Your task to perform on an android device: Clear all items from cart on ebay.com. Image 0: 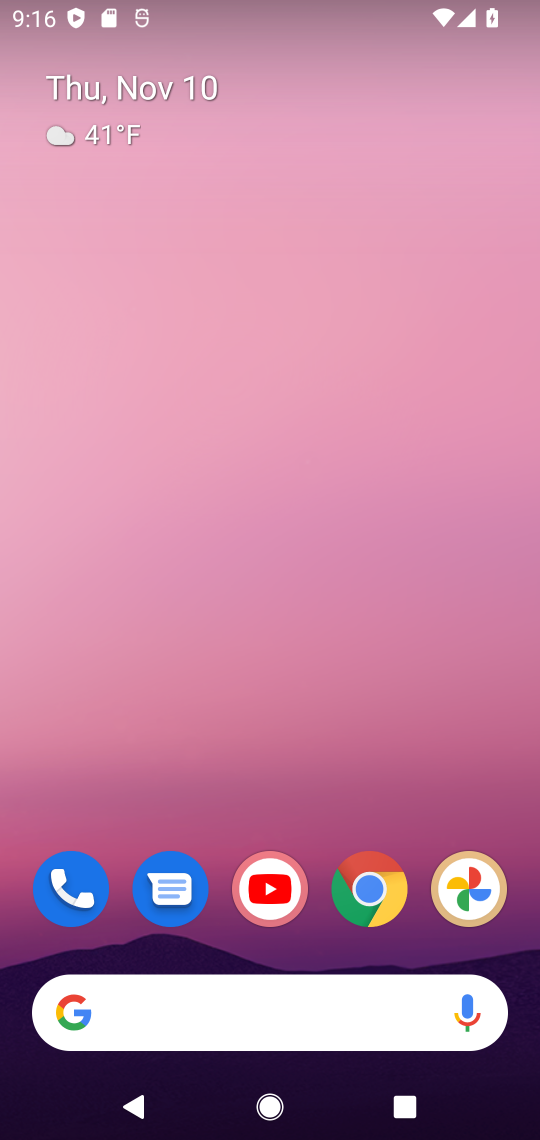
Step 0: click (362, 887)
Your task to perform on an android device: Clear all items from cart on ebay.com. Image 1: 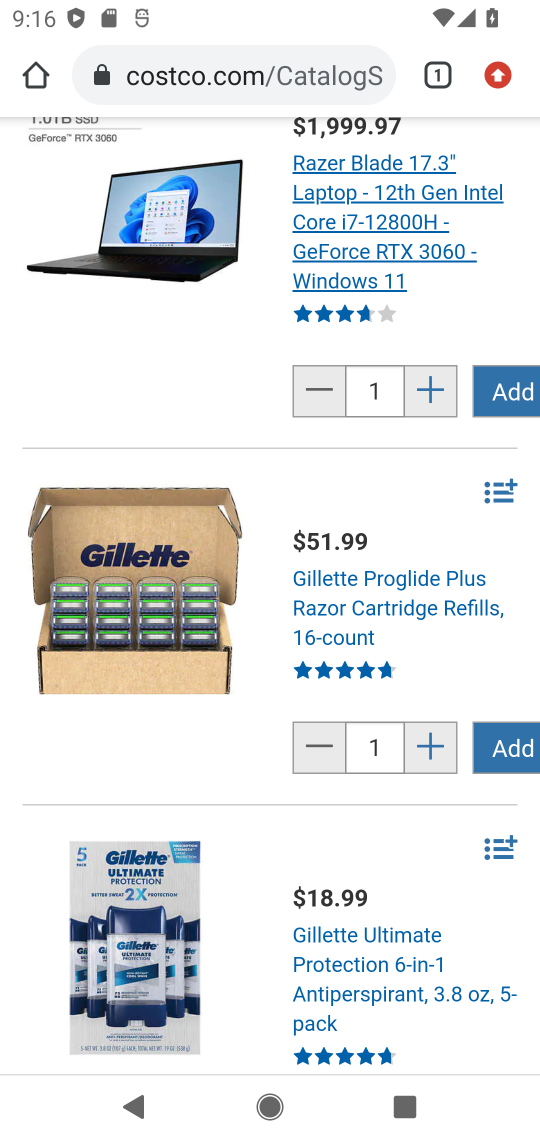
Step 1: click (345, 174)
Your task to perform on an android device: Clear all items from cart on ebay.com. Image 2: 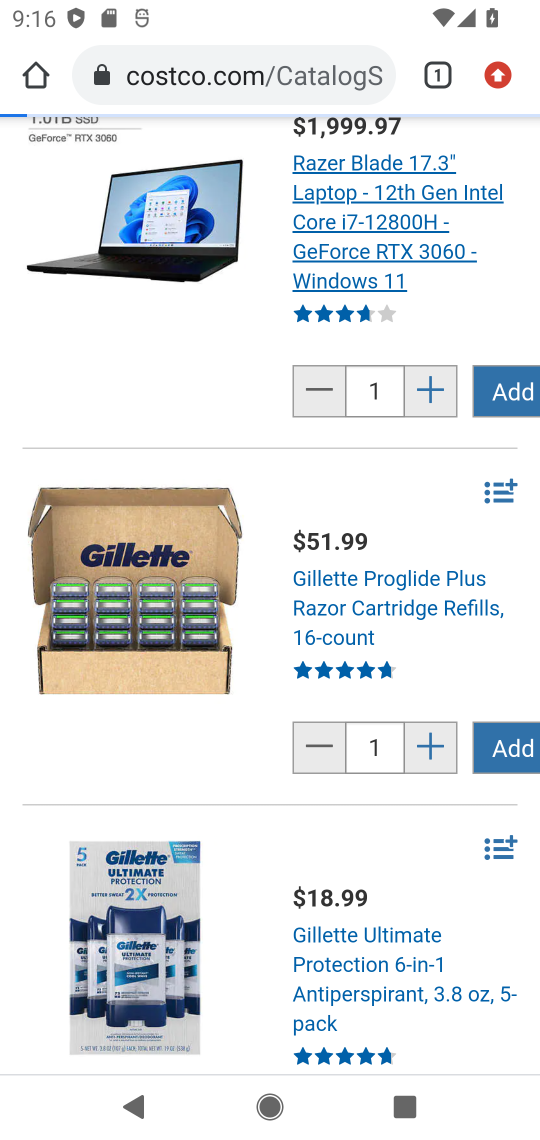
Step 2: click (277, 67)
Your task to perform on an android device: Clear all items from cart on ebay.com. Image 3: 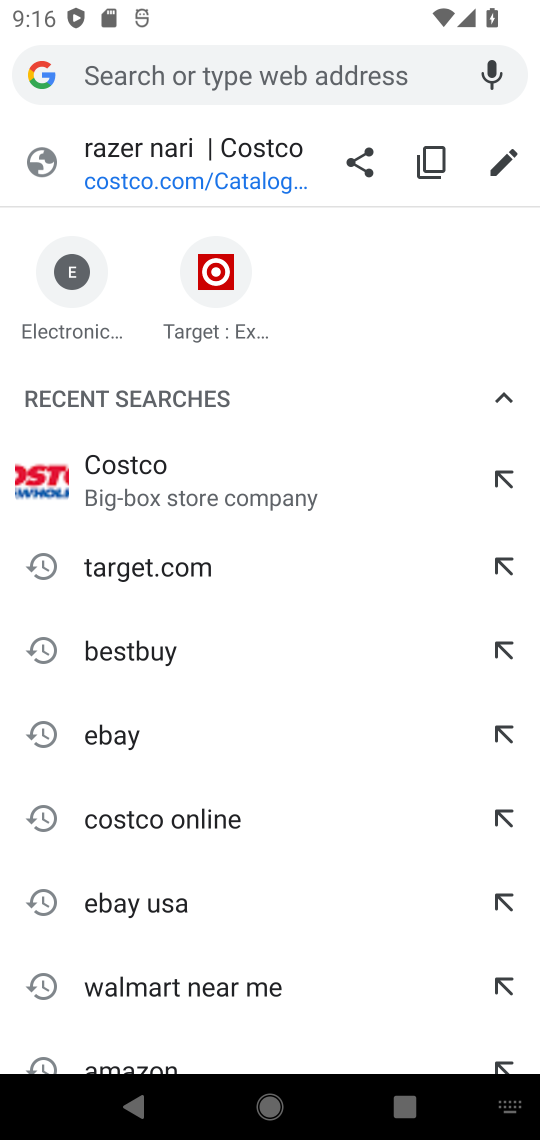
Step 3: click (115, 741)
Your task to perform on an android device: Clear all items from cart on ebay.com. Image 4: 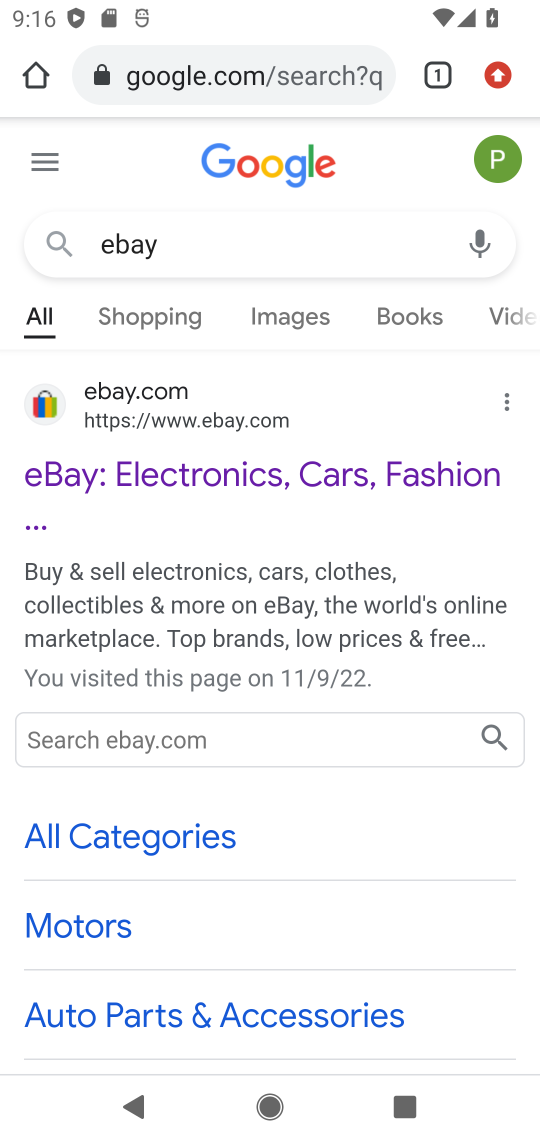
Step 4: click (236, 469)
Your task to perform on an android device: Clear all items from cart on ebay.com. Image 5: 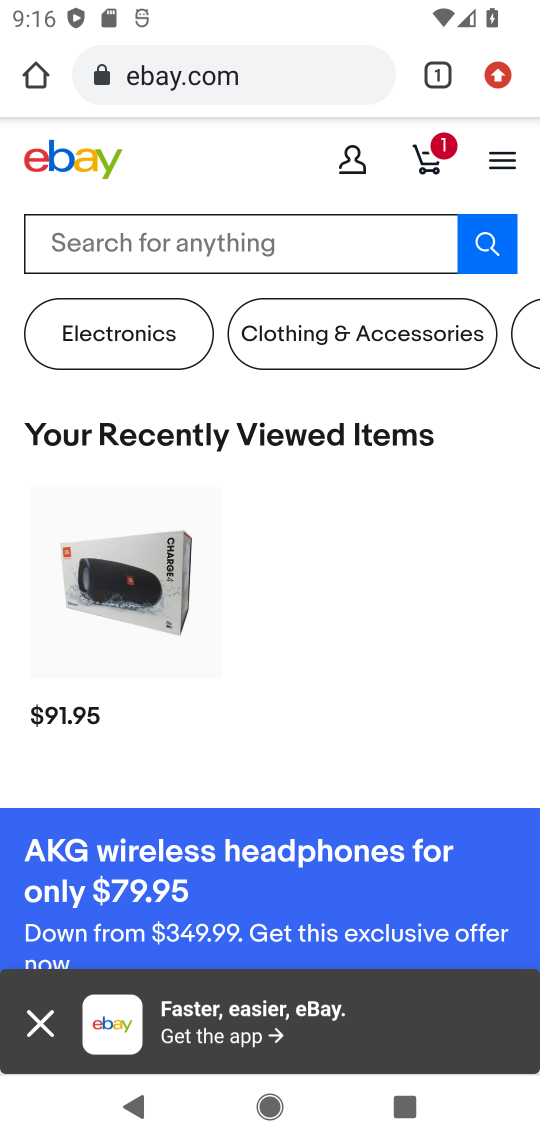
Step 5: click (429, 148)
Your task to perform on an android device: Clear all items from cart on ebay.com. Image 6: 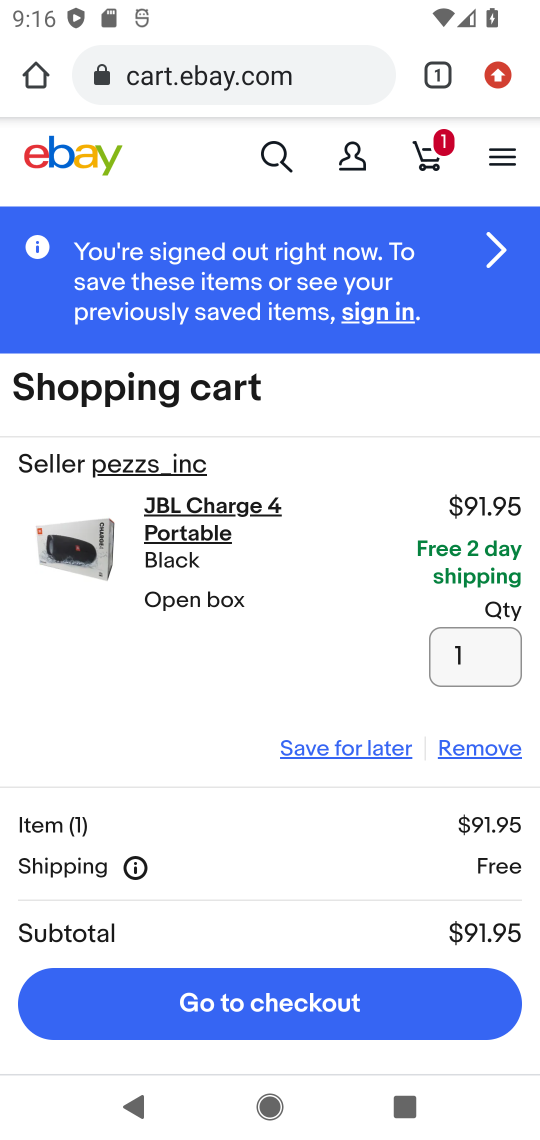
Step 6: click (486, 741)
Your task to perform on an android device: Clear all items from cart on ebay.com. Image 7: 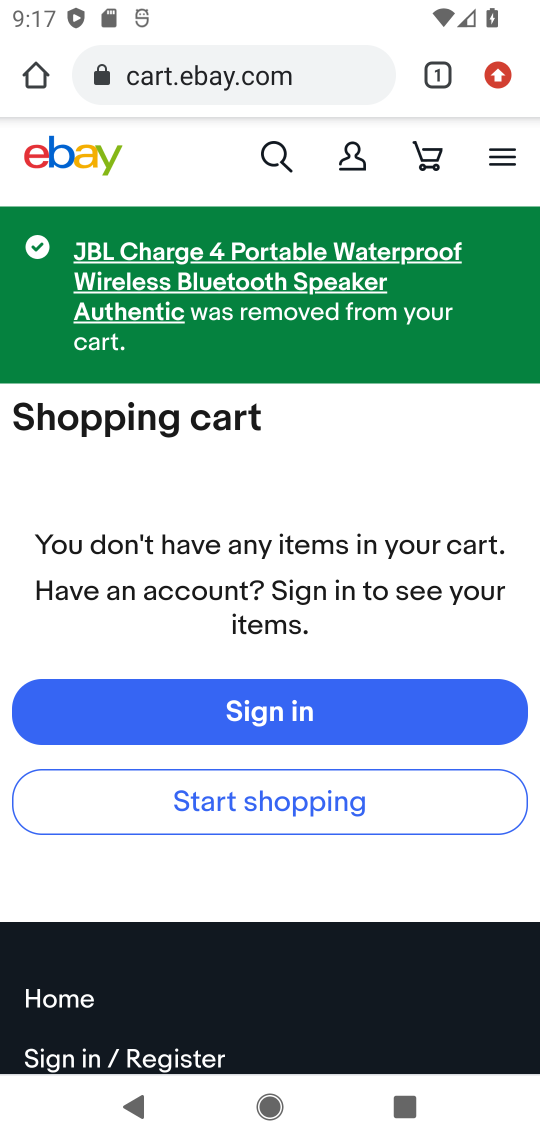
Step 7: task complete